Your task to perform on an android device: toggle data saver in the chrome app Image 0: 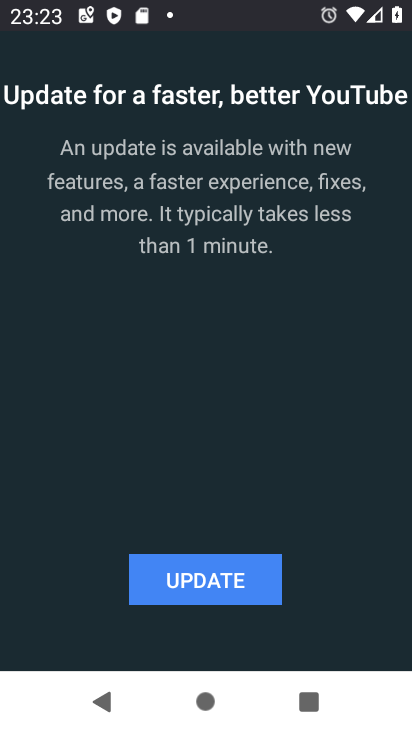
Step 0: press home button
Your task to perform on an android device: toggle data saver in the chrome app Image 1: 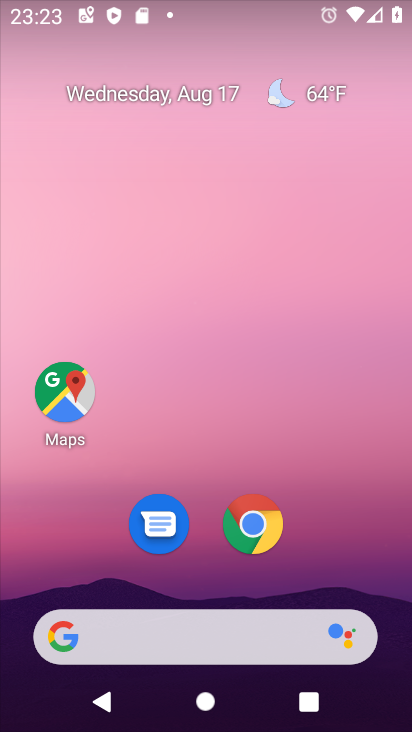
Step 1: click (260, 519)
Your task to perform on an android device: toggle data saver in the chrome app Image 2: 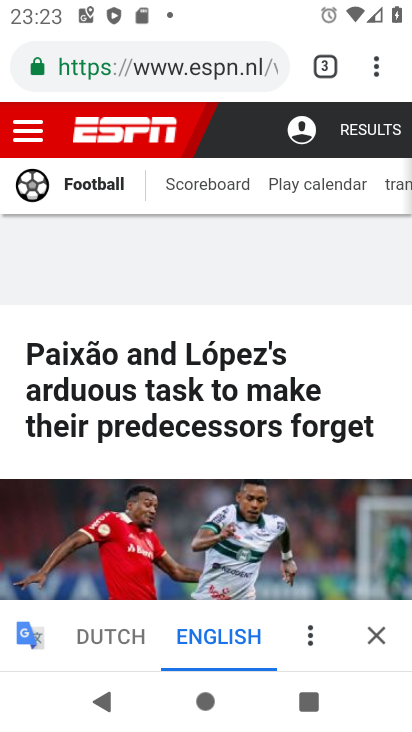
Step 2: click (376, 60)
Your task to perform on an android device: toggle data saver in the chrome app Image 3: 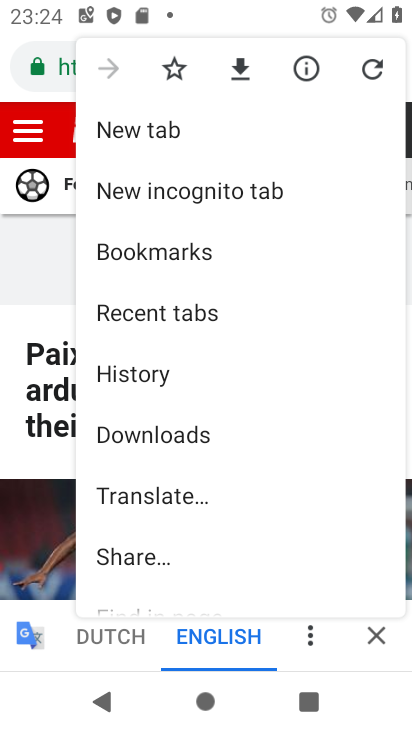
Step 3: drag from (260, 465) to (298, 118)
Your task to perform on an android device: toggle data saver in the chrome app Image 4: 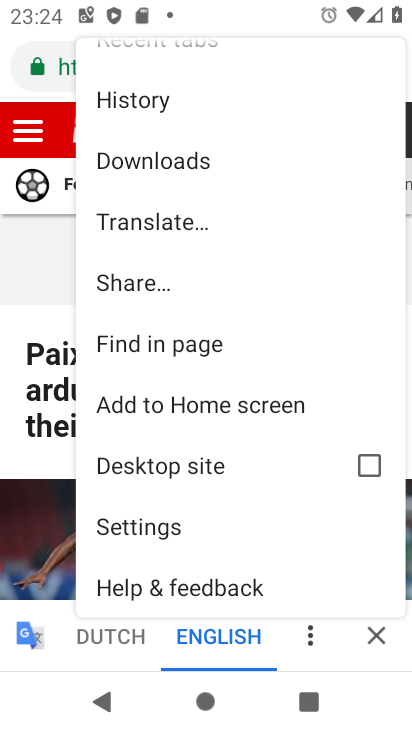
Step 4: click (173, 527)
Your task to perform on an android device: toggle data saver in the chrome app Image 5: 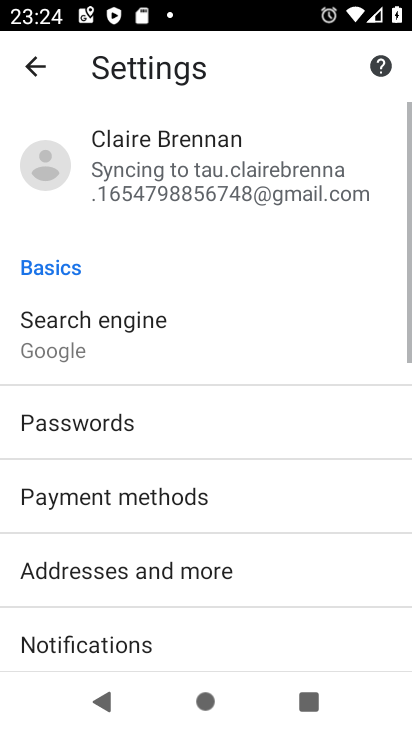
Step 5: drag from (174, 521) to (240, 95)
Your task to perform on an android device: toggle data saver in the chrome app Image 6: 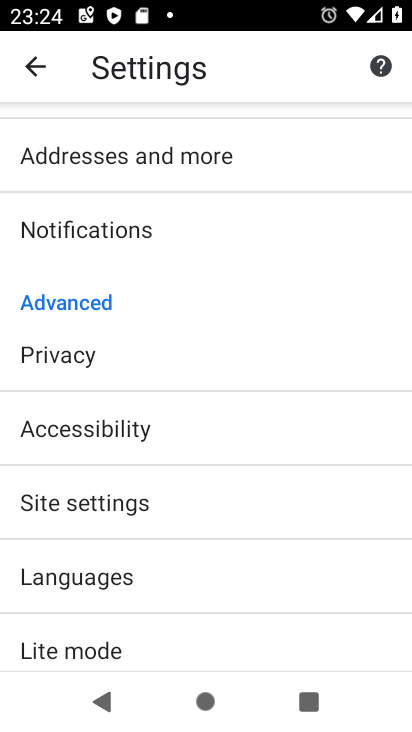
Step 6: drag from (213, 513) to (270, 209)
Your task to perform on an android device: toggle data saver in the chrome app Image 7: 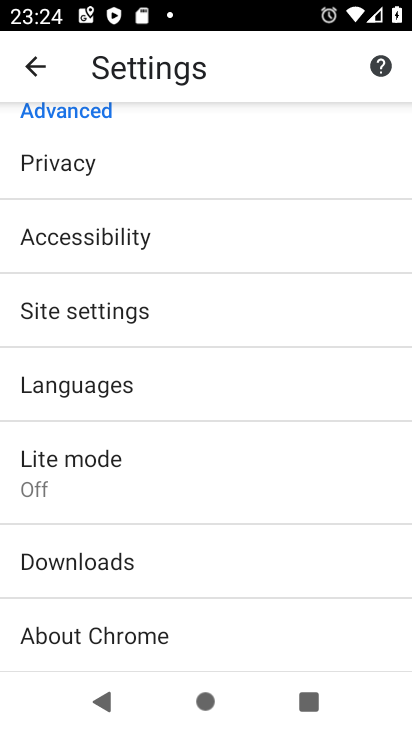
Step 7: click (137, 484)
Your task to perform on an android device: toggle data saver in the chrome app Image 8: 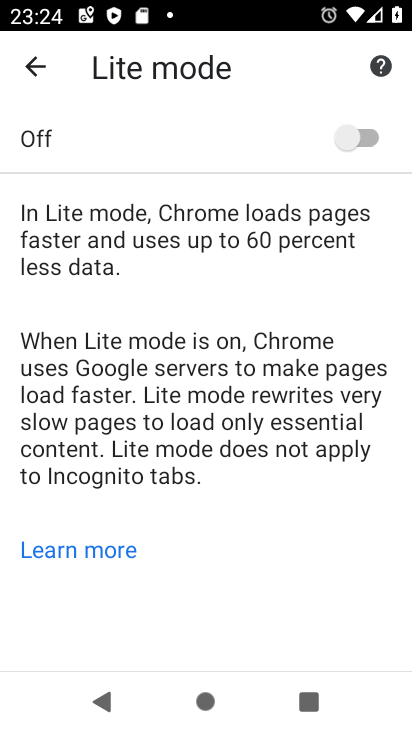
Step 8: click (376, 131)
Your task to perform on an android device: toggle data saver in the chrome app Image 9: 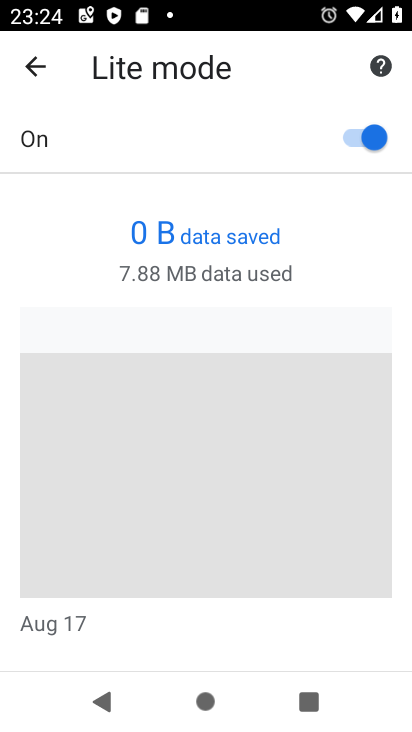
Step 9: task complete